Your task to perform on an android device: Open Chrome and go to settings Image 0: 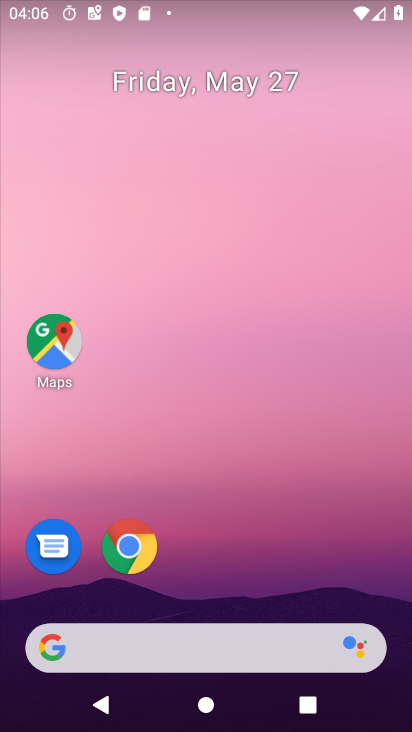
Step 0: click (137, 547)
Your task to perform on an android device: Open Chrome and go to settings Image 1: 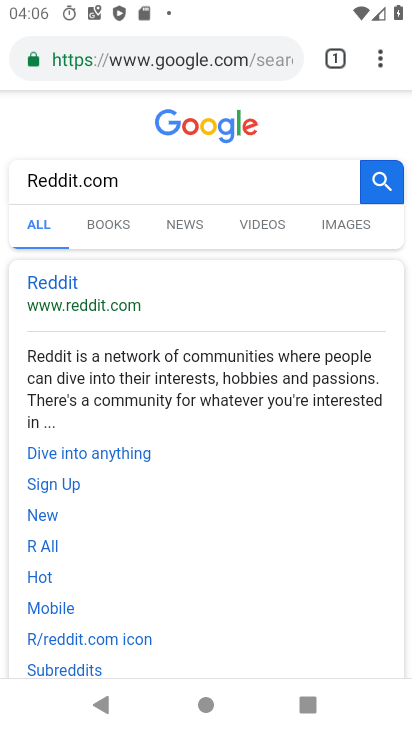
Step 1: click (289, 56)
Your task to perform on an android device: Open Chrome and go to settings Image 2: 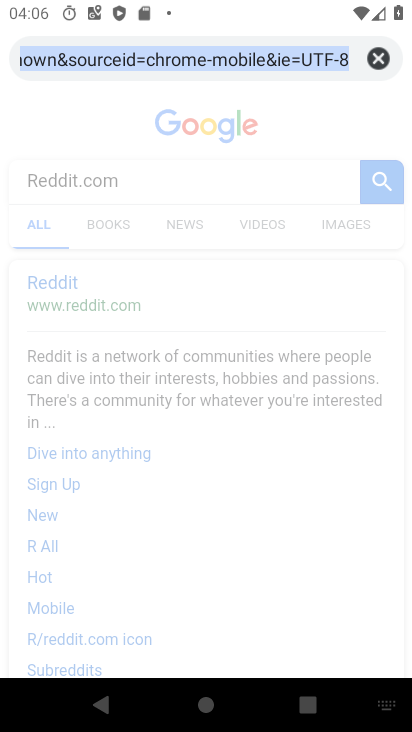
Step 2: press back button
Your task to perform on an android device: Open Chrome and go to settings Image 3: 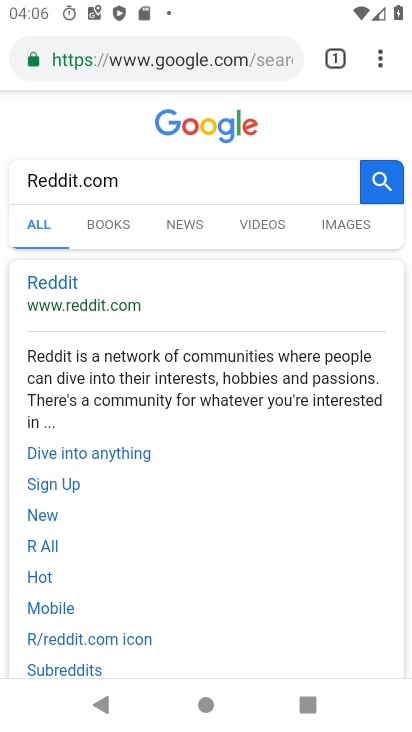
Step 3: click (379, 57)
Your task to perform on an android device: Open Chrome and go to settings Image 4: 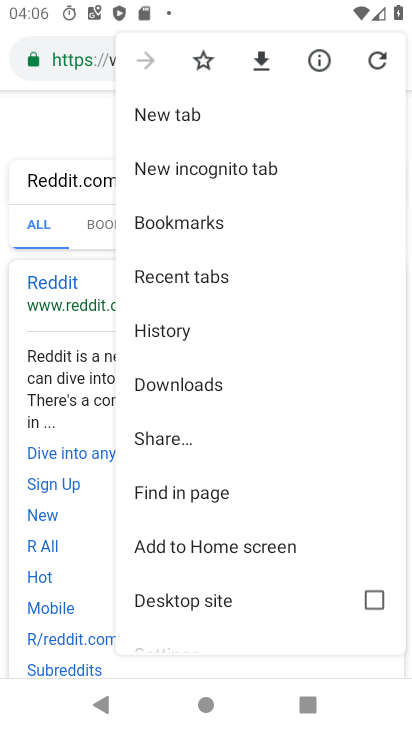
Step 4: drag from (302, 576) to (309, 338)
Your task to perform on an android device: Open Chrome and go to settings Image 5: 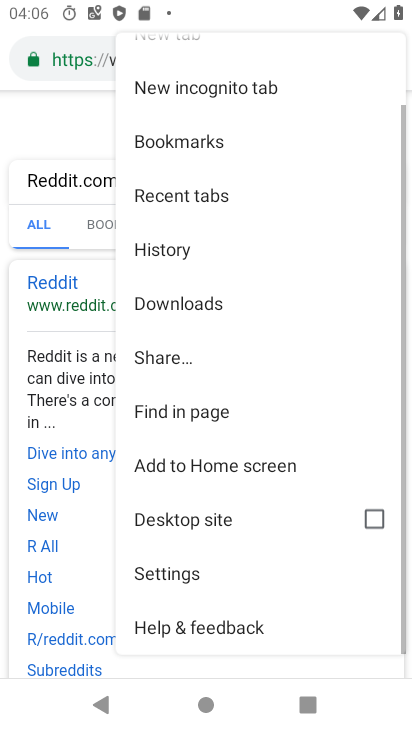
Step 5: click (174, 577)
Your task to perform on an android device: Open Chrome and go to settings Image 6: 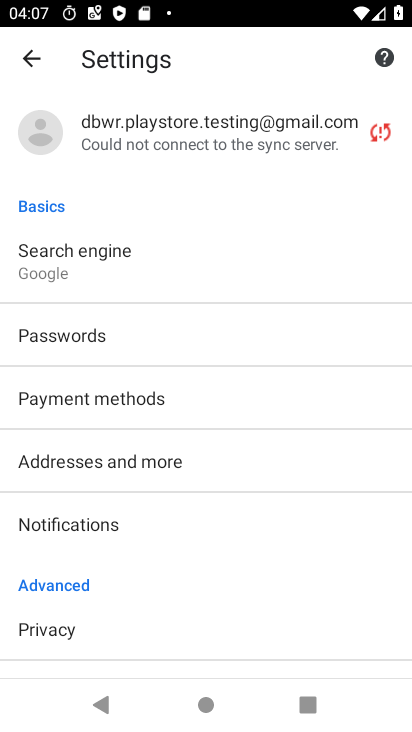
Step 6: task complete